Your task to perform on an android device: Add razer blade to the cart on amazon.com, then select checkout. Image 0: 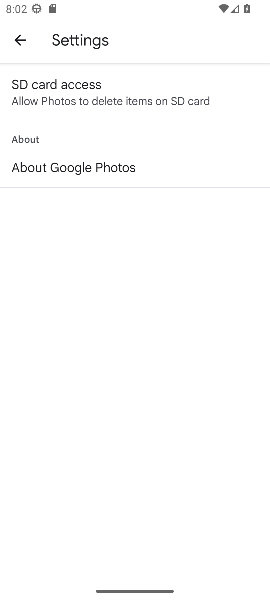
Step 0: press home button
Your task to perform on an android device: Add razer blade to the cart on amazon.com, then select checkout. Image 1: 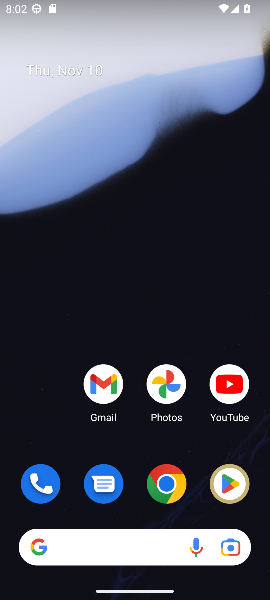
Step 1: click (173, 488)
Your task to perform on an android device: Add razer blade to the cart on amazon.com, then select checkout. Image 2: 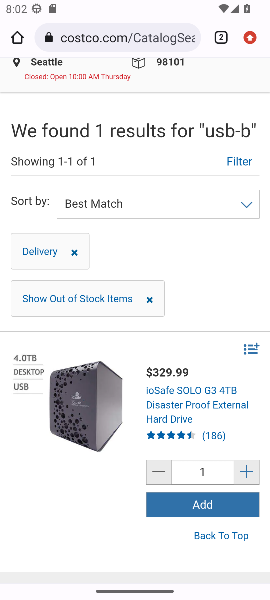
Step 2: click (149, 39)
Your task to perform on an android device: Add razer blade to the cart on amazon.com, then select checkout. Image 3: 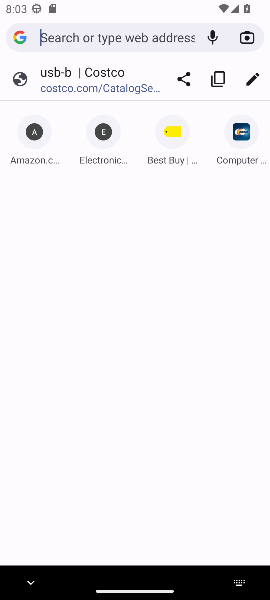
Step 3: click (31, 146)
Your task to perform on an android device: Add razer blade to the cart on amazon.com, then select checkout. Image 4: 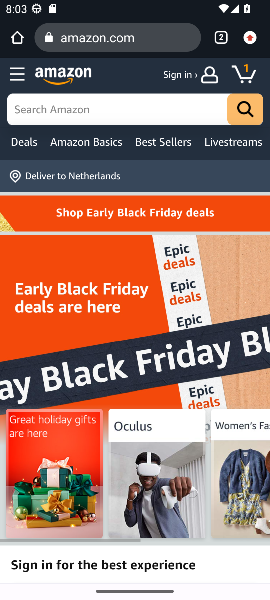
Step 4: click (38, 112)
Your task to perform on an android device: Add razer blade to the cart on amazon.com, then select checkout. Image 5: 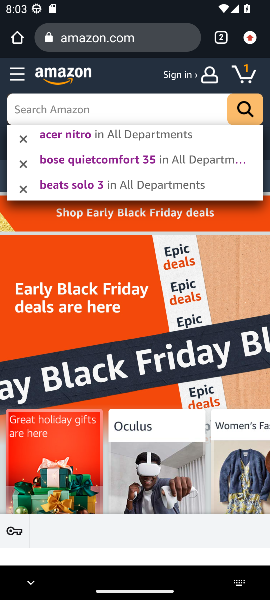
Step 5: type "razer blade"
Your task to perform on an android device: Add razer blade to the cart on amazon.com, then select checkout. Image 6: 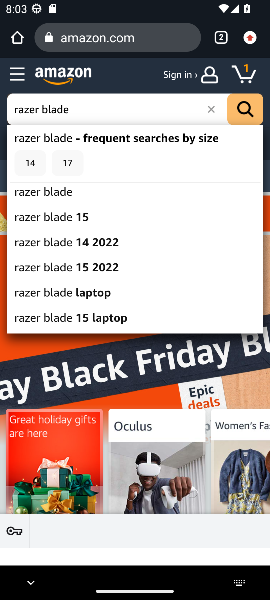
Step 6: click (60, 197)
Your task to perform on an android device: Add razer blade to the cart on amazon.com, then select checkout. Image 7: 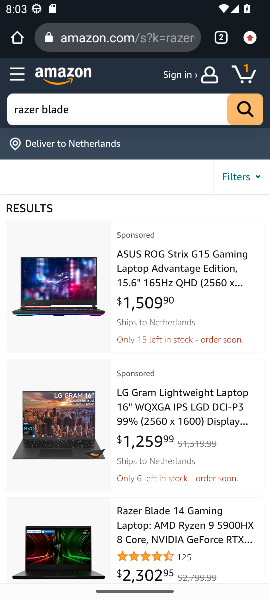
Step 7: drag from (73, 520) to (71, 335)
Your task to perform on an android device: Add razer blade to the cart on amazon.com, then select checkout. Image 8: 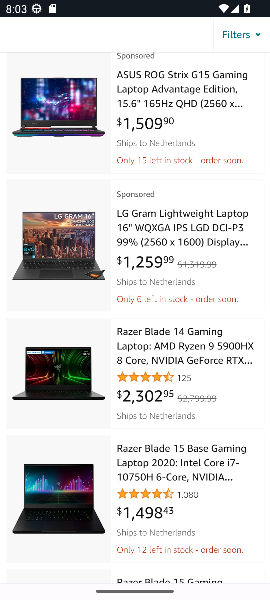
Step 8: click (69, 270)
Your task to perform on an android device: Add razer blade to the cart on amazon.com, then select checkout. Image 9: 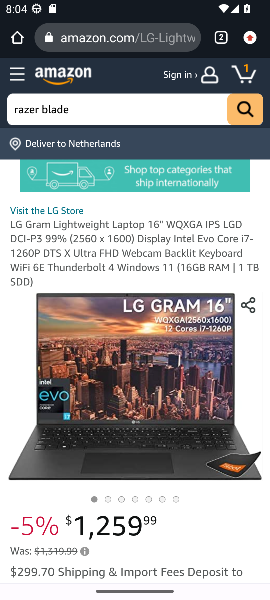
Step 9: press back button
Your task to perform on an android device: Add razer blade to the cart on amazon.com, then select checkout. Image 10: 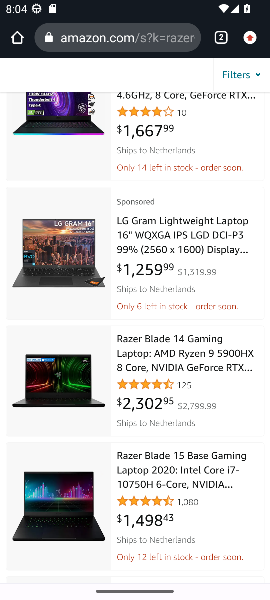
Step 10: click (58, 394)
Your task to perform on an android device: Add razer blade to the cart on amazon.com, then select checkout. Image 11: 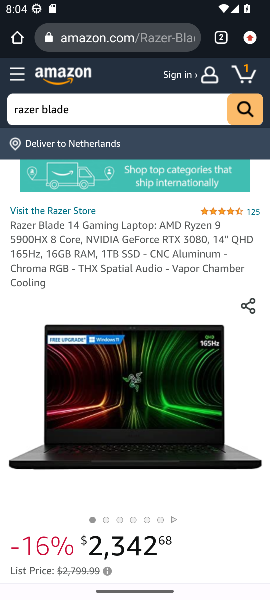
Step 11: drag from (57, 394) to (89, 158)
Your task to perform on an android device: Add razer blade to the cart on amazon.com, then select checkout. Image 12: 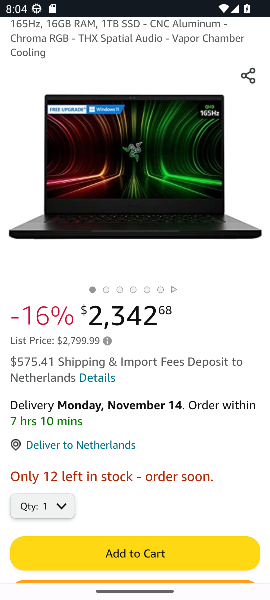
Step 12: drag from (128, 381) to (128, 263)
Your task to perform on an android device: Add razer blade to the cart on amazon.com, then select checkout. Image 13: 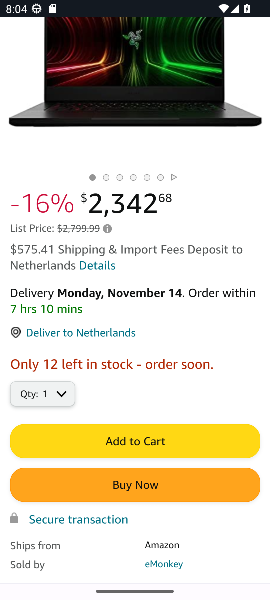
Step 13: click (137, 436)
Your task to perform on an android device: Add razer blade to the cart on amazon.com, then select checkout. Image 14: 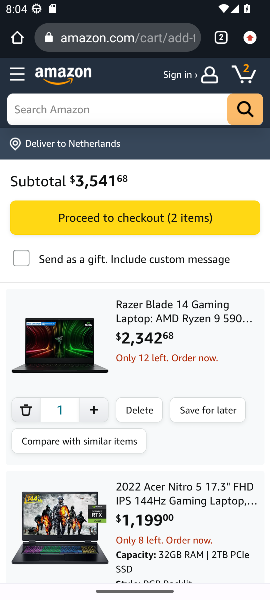
Step 14: click (115, 217)
Your task to perform on an android device: Add razer blade to the cart on amazon.com, then select checkout. Image 15: 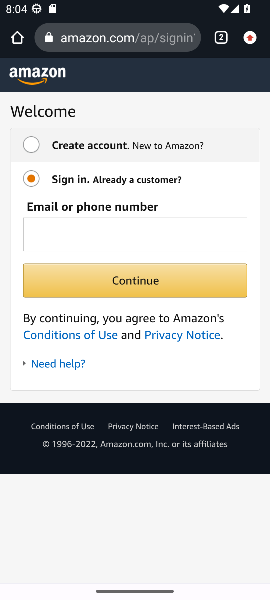
Step 15: task complete